Your task to perform on an android device: install app "Mercado Libre" Image 0: 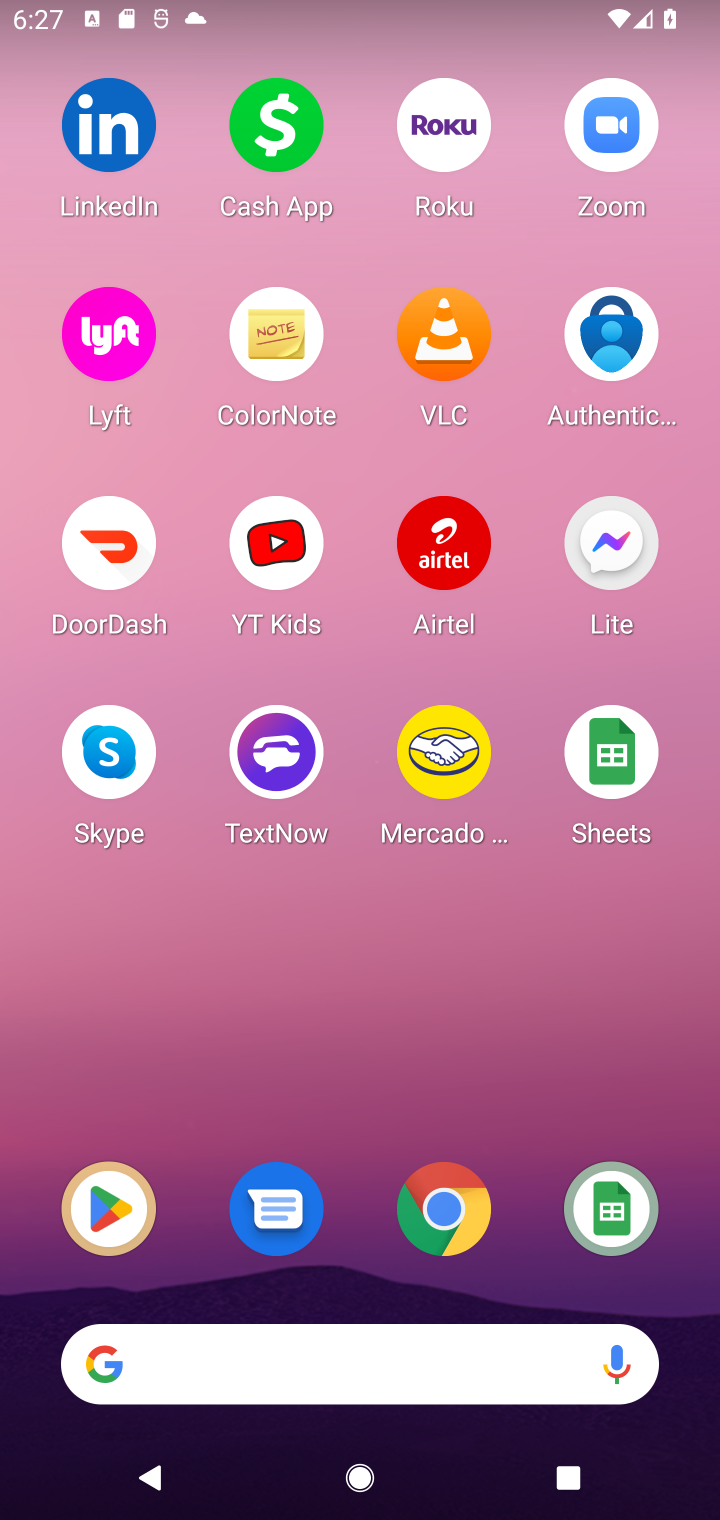
Step 0: click (97, 1222)
Your task to perform on an android device: install app "Mercado Libre" Image 1: 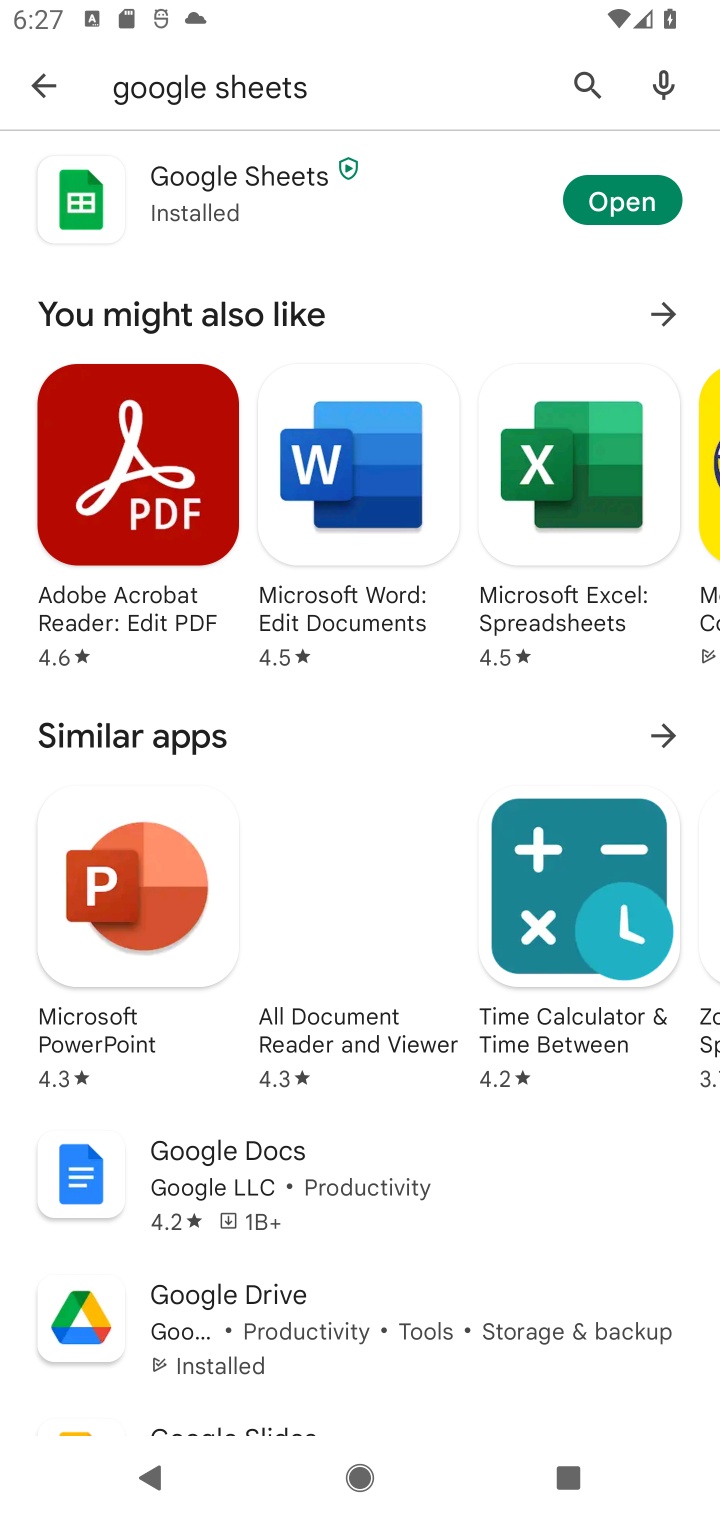
Step 1: click (609, 86)
Your task to perform on an android device: install app "Mercado Libre" Image 2: 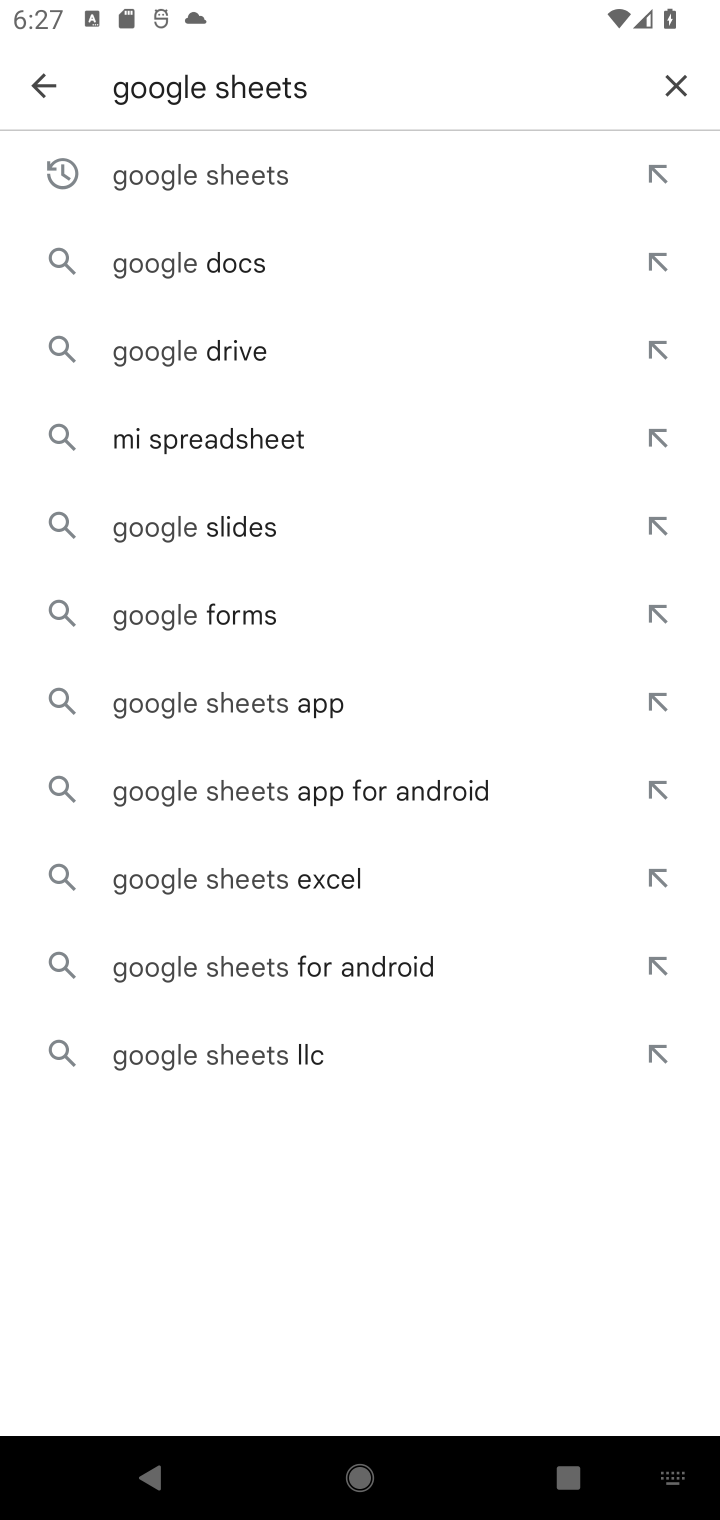
Step 2: click (667, 87)
Your task to perform on an android device: install app "Mercado Libre" Image 3: 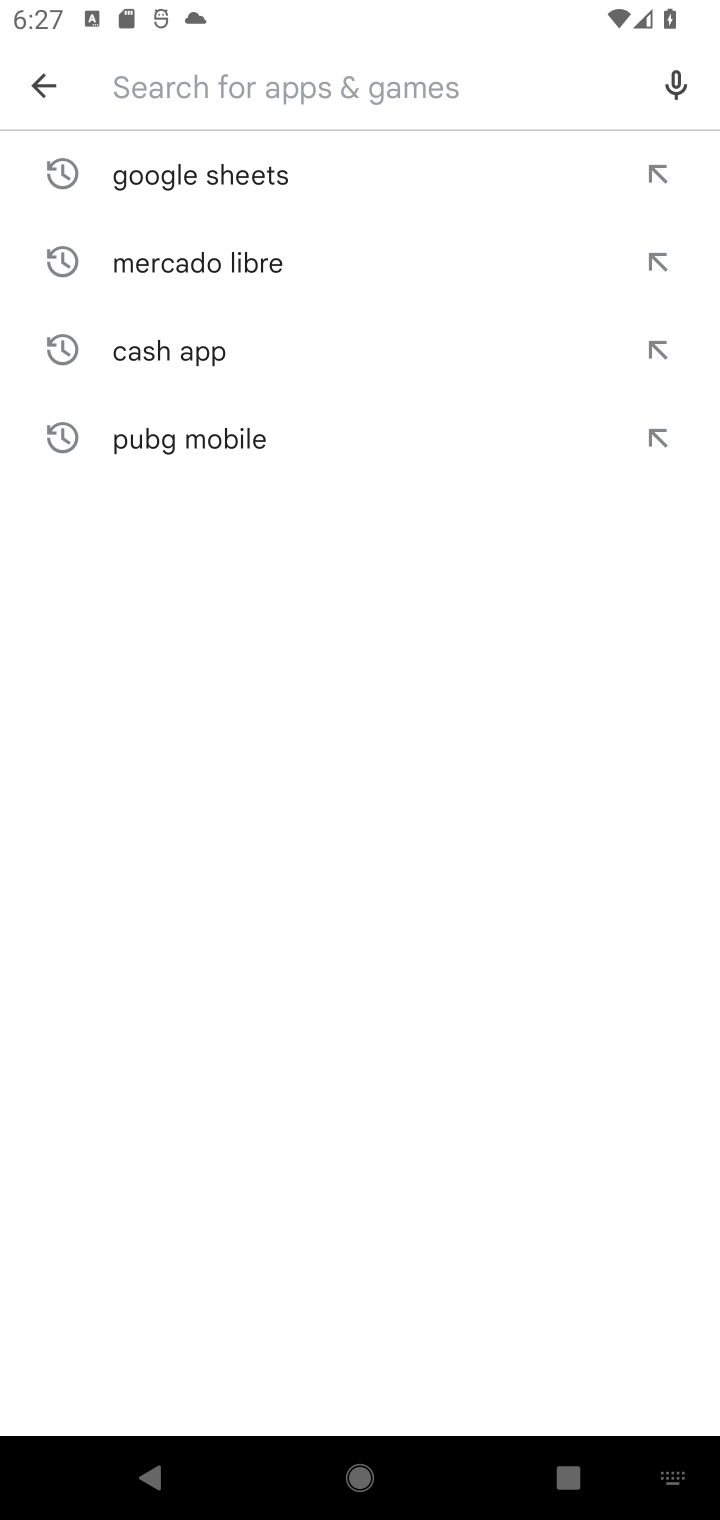
Step 3: type "Mercado Libre"
Your task to perform on an android device: install app "Mercado Libre" Image 4: 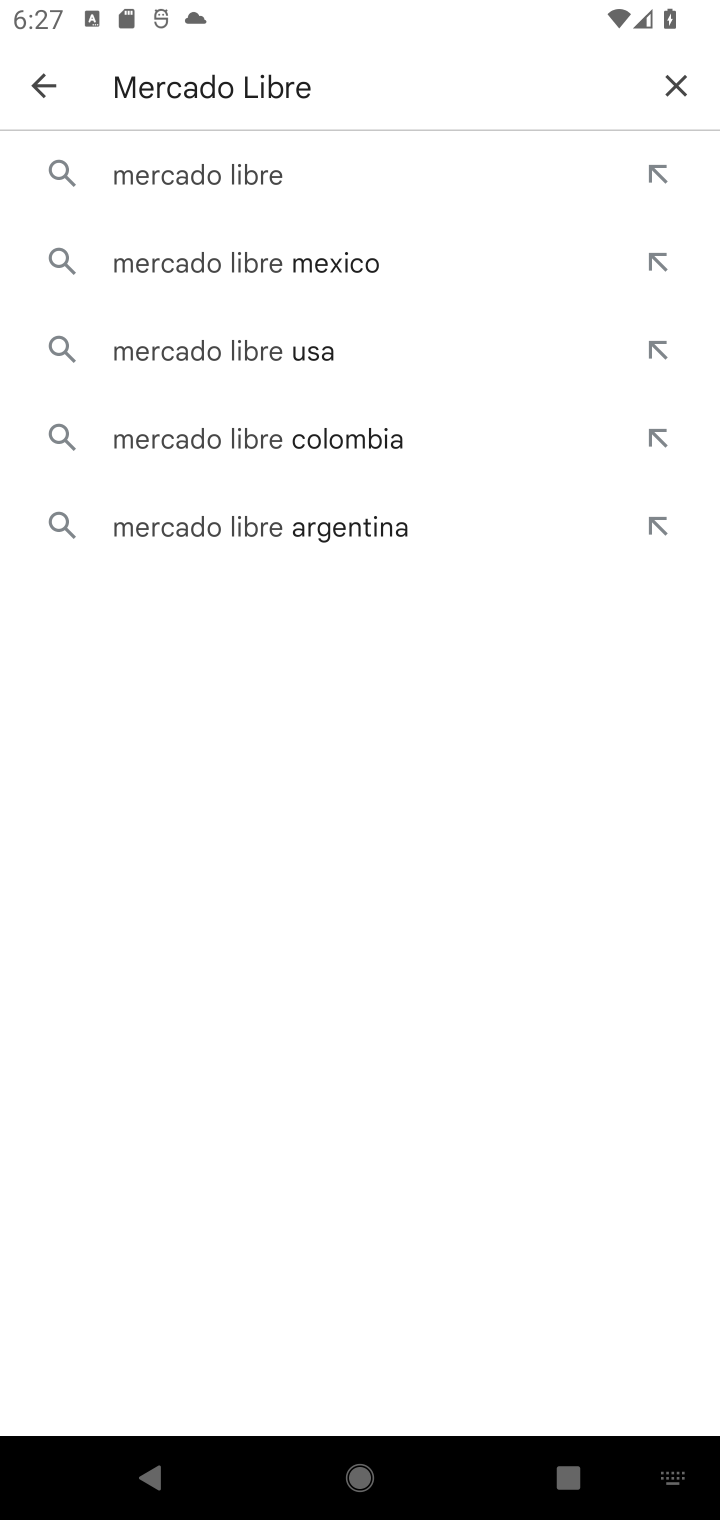
Step 4: click (191, 191)
Your task to perform on an android device: install app "Mercado Libre" Image 5: 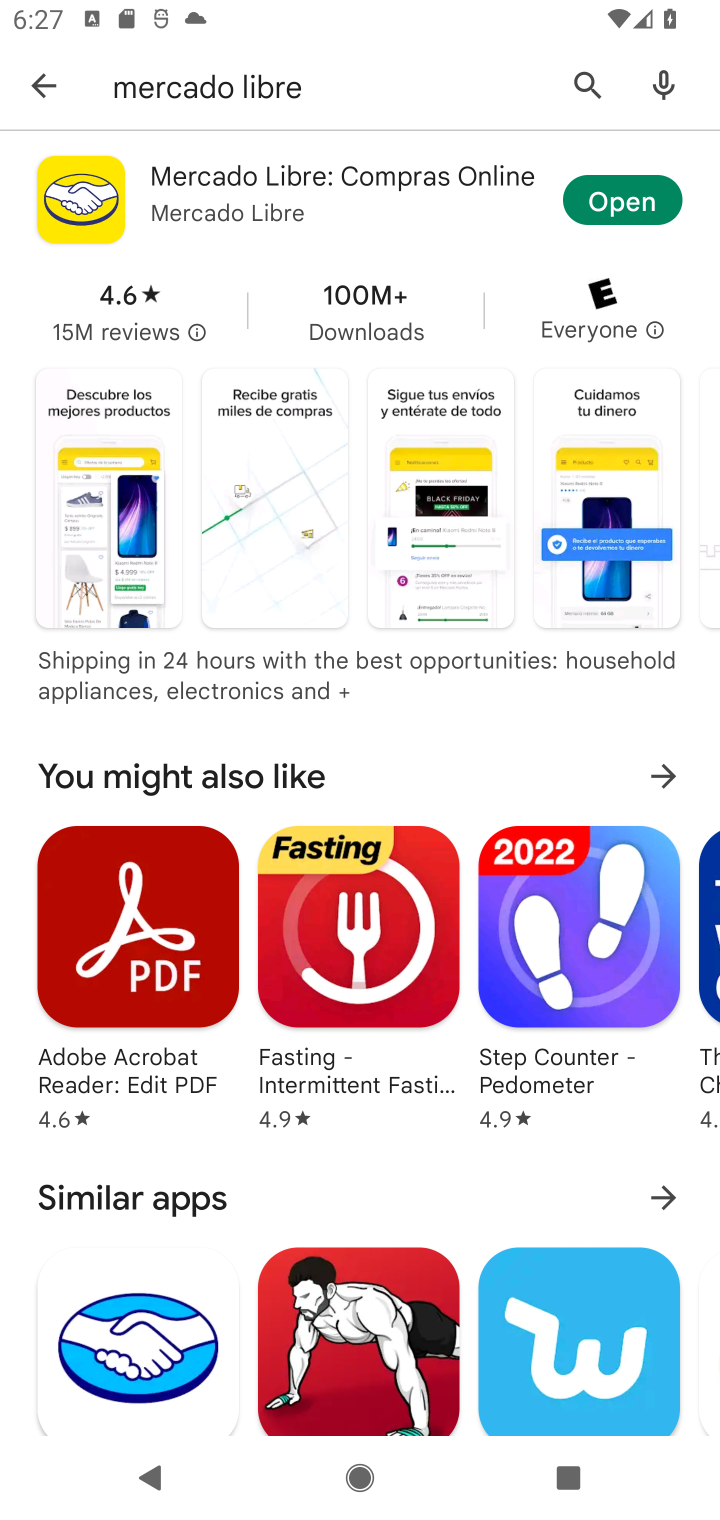
Step 5: task complete